Your task to perform on an android device: toggle wifi Image 0: 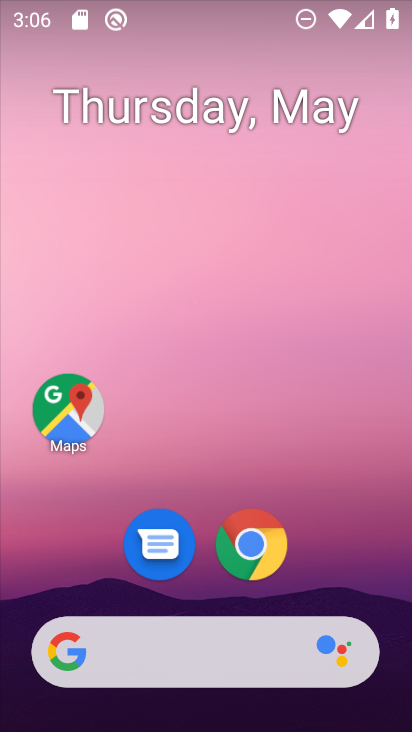
Step 0: drag from (74, 607) to (194, 179)
Your task to perform on an android device: toggle wifi Image 1: 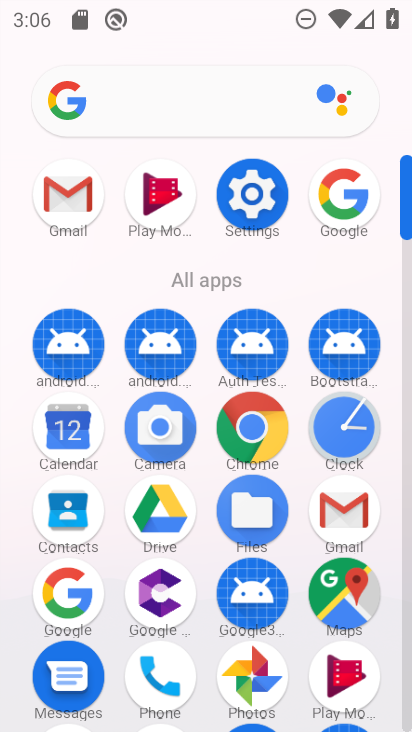
Step 1: drag from (164, 640) to (242, 430)
Your task to perform on an android device: toggle wifi Image 2: 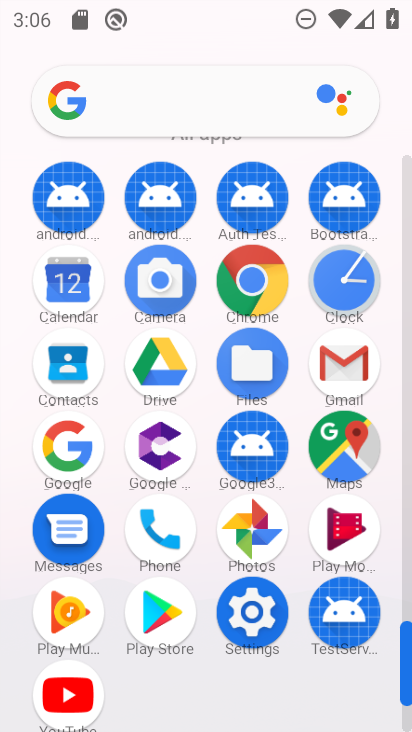
Step 2: click (249, 613)
Your task to perform on an android device: toggle wifi Image 3: 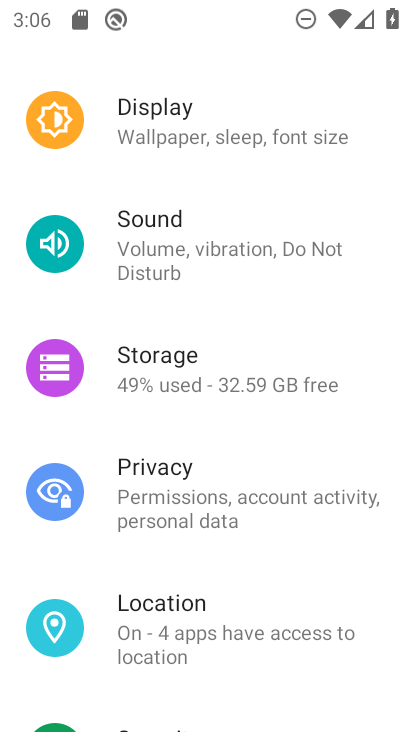
Step 3: drag from (233, 175) to (233, 459)
Your task to perform on an android device: toggle wifi Image 4: 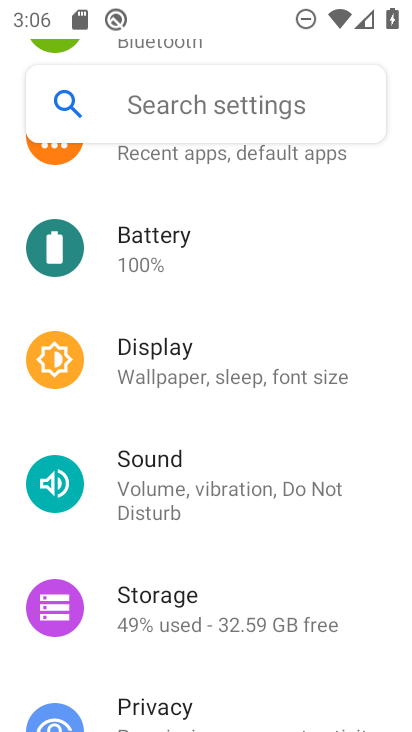
Step 4: drag from (284, 167) to (251, 606)
Your task to perform on an android device: toggle wifi Image 5: 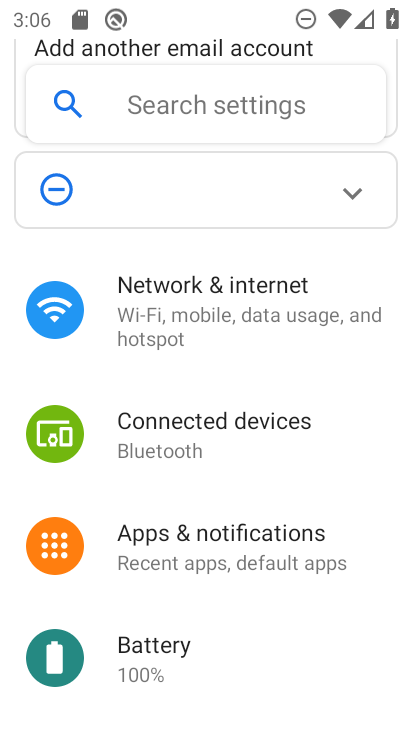
Step 5: click (246, 339)
Your task to perform on an android device: toggle wifi Image 6: 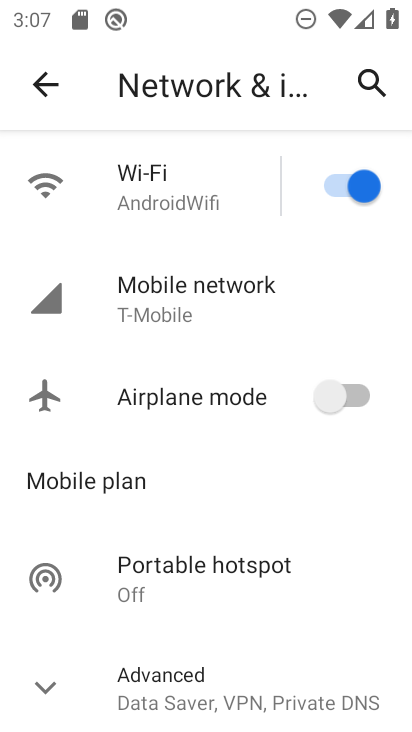
Step 6: click (343, 186)
Your task to perform on an android device: toggle wifi Image 7: 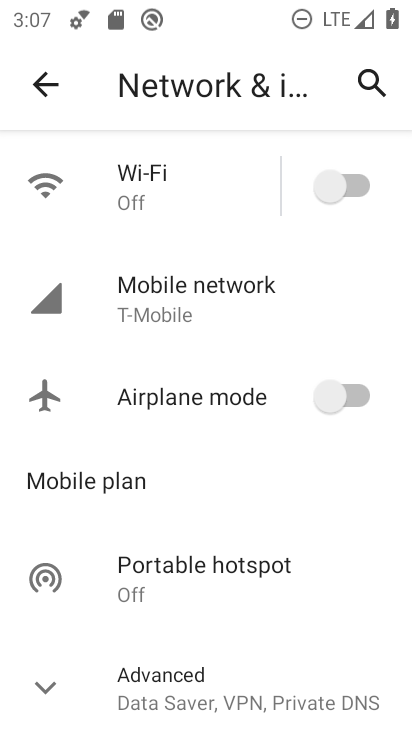
Step 7: task complete